Your task to perform on an android device: change notifications settings Image 0: 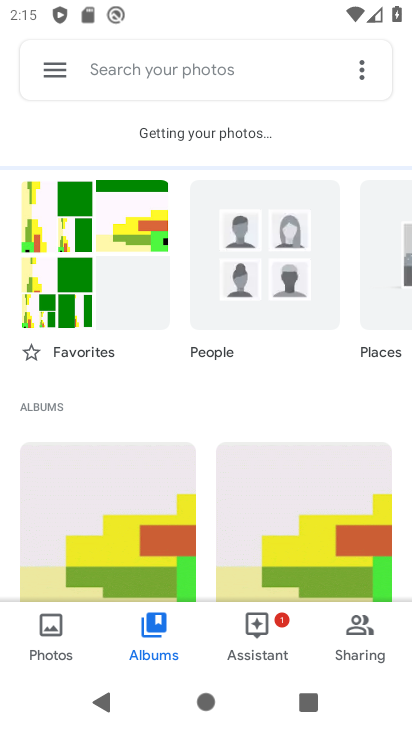
Step 0: press home button
Your task to perform on an android device: change notifications settings Image 1: 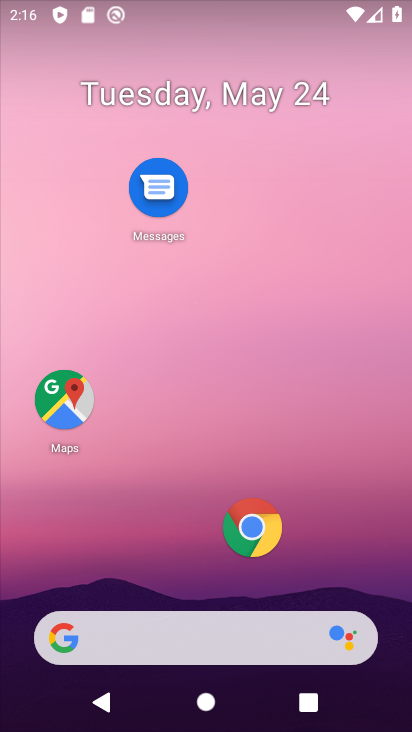
Step 1: drag from (201, 600) to (257, 126)
Your task to perform on an android device: change notifications settings Image 2: 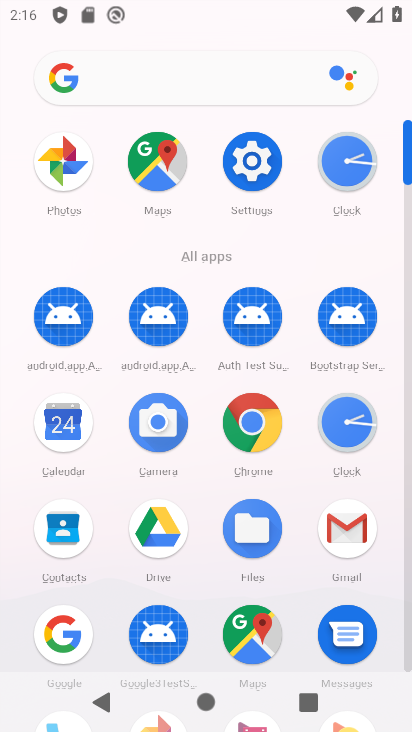
Step 2: click (256, 165)
Your task to perform on an android device: change notifications settings Image 3: 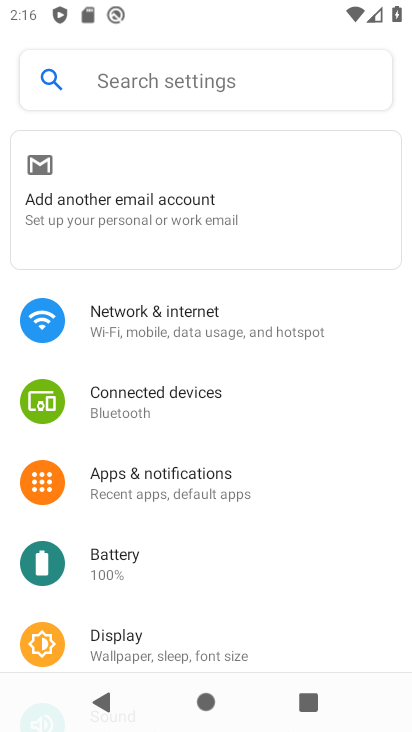
Step 3: click (215, 479)
Your task to perform on an android device: change notifications settings Image 4: 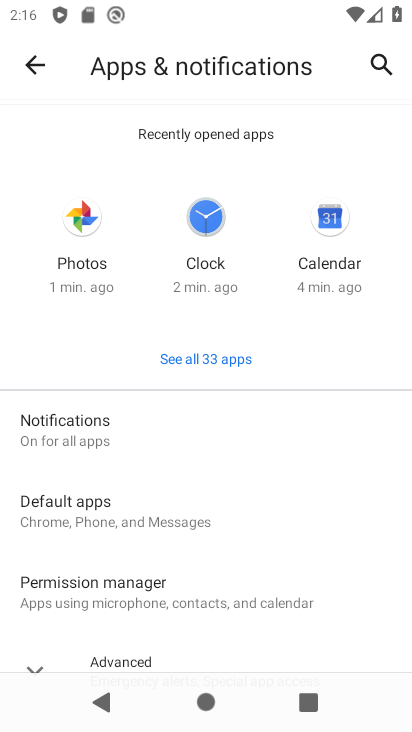
Step 4: click (101, 429)
Your task to perform on an android device: change notifications settings Image 5: 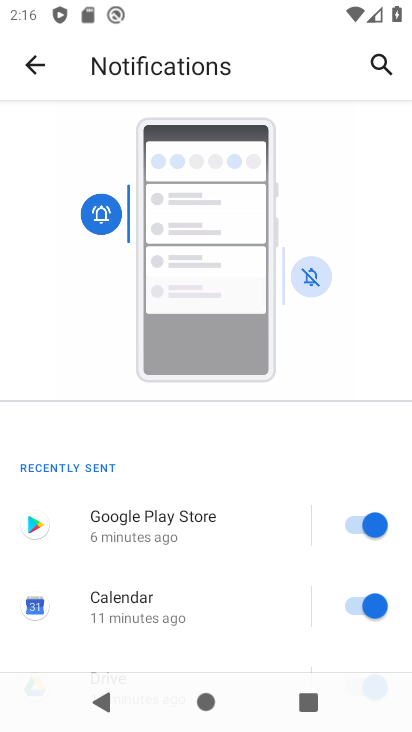
Step 5: task complete